Your task to perform on an android device: set the stopwatch Image 0: 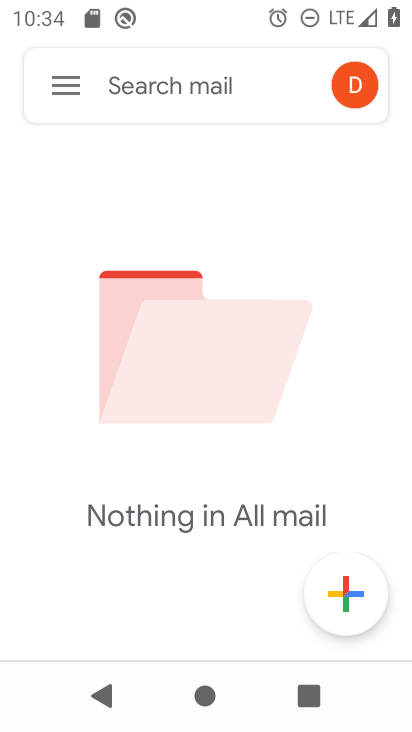
Step 0: press home button
Your task to perform on an android device: set the stopwatch Image 1: 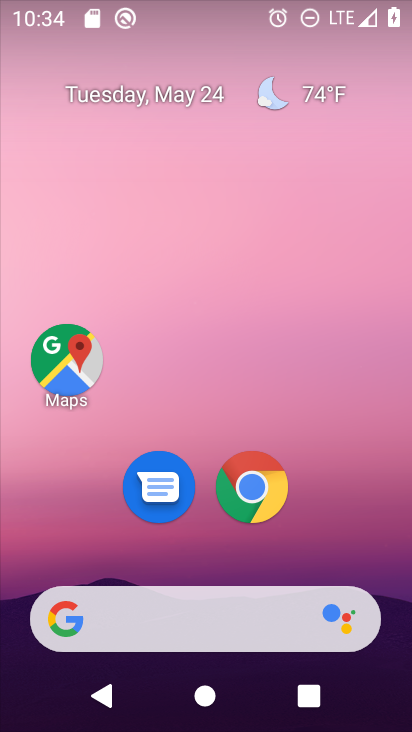
Step 1: drag from (321, 551) to (112, 6)
Your task to perform on an android device: set the stopwatch Image 2: 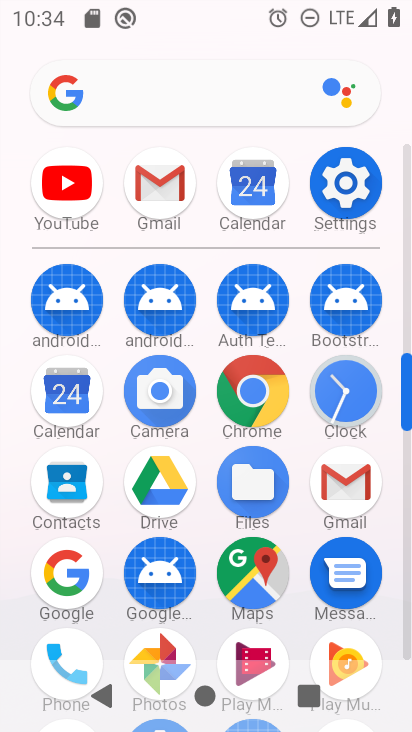
Step 2: click (346, 402)
Your task to perform on an android device: set the stopwatch Image 3: 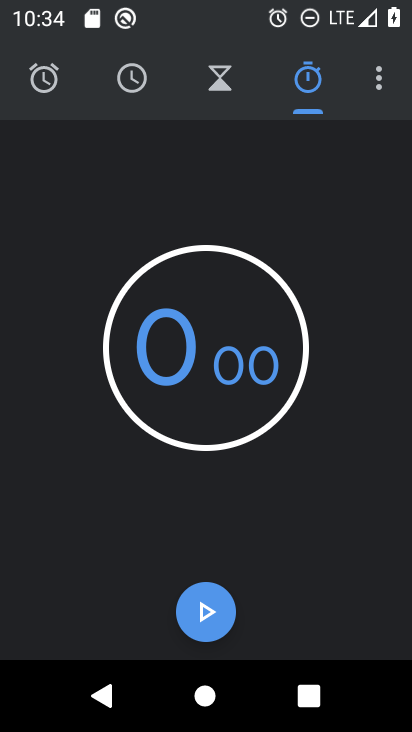
Step 3: click (217, 616)
Your task to perform on an android device: set the stopwatch Image 4: 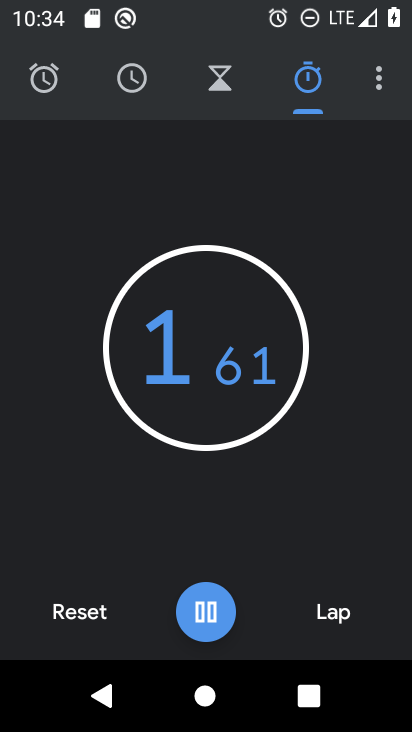
Step 4: click (209, 623)
Your task to perform on an android device: set the stopwatch Image 5: 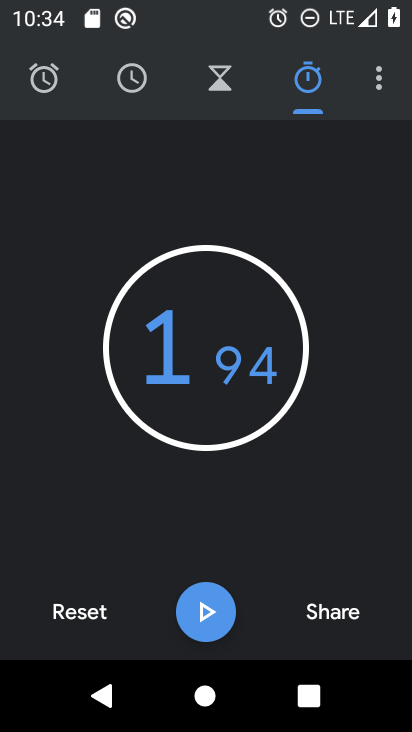
Step 5: task complete